Your task to perform on an android device: see sites visited before in the chrome app Image 0: 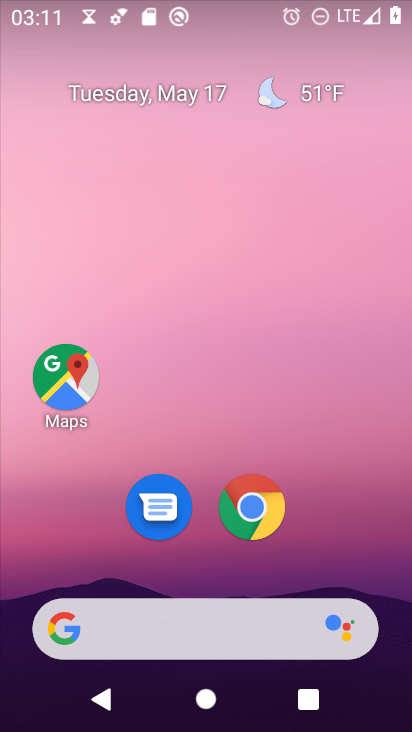
Step 0: click (245, 504)
Your task to perform on an android device: see sites visited before in the chrome app Image 1: 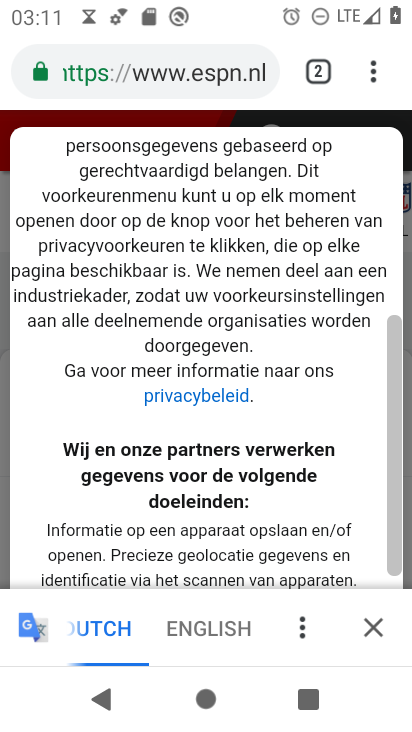
Step 1: click (369, 58)
Your task to perform on an android device: see sites visited before in the chrome app Image 2: 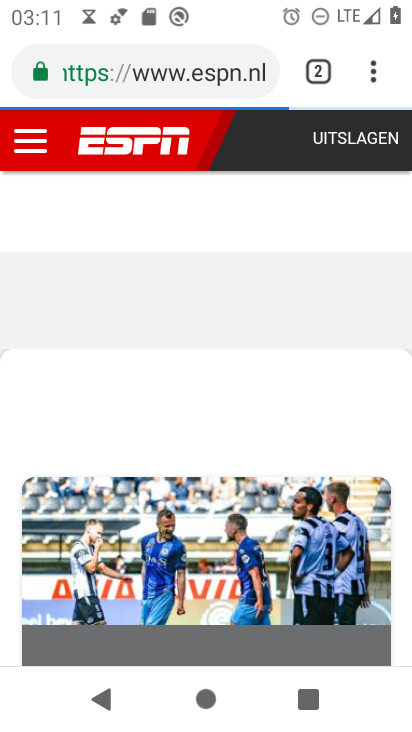
Step 2: click (367, 57)
Your task to perform on an android device: see sites visited before in the chrome app Image 3: 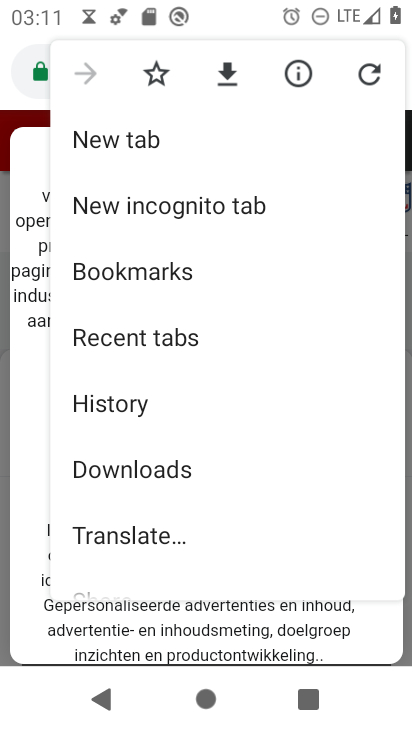
Step 3: click (145, 392)
Your task to perform on an android device: see sites visited before in the chrome app Image 4: 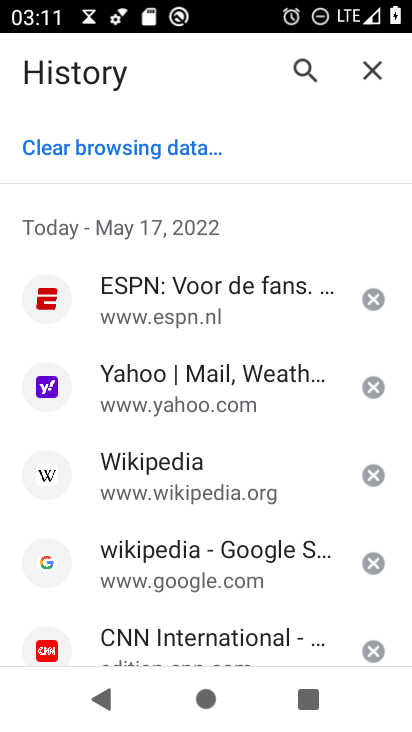
Step 4: task complete